Your task to perform on an android device: Open calendar and show me the second week of next month Image 0: 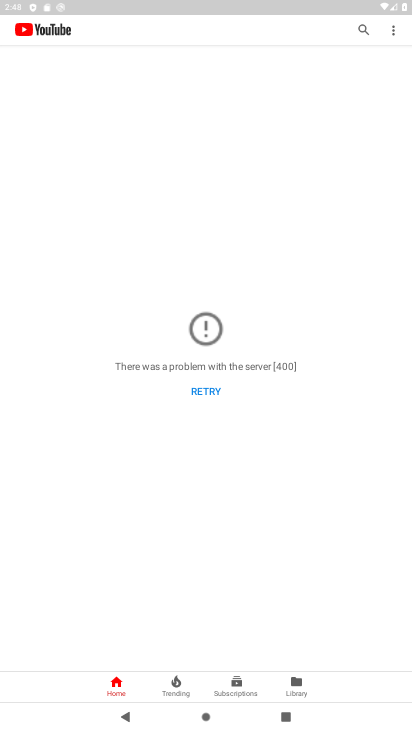
Step 0: press home button
Your task to perform on an android device: Open calendar and show me the second week of next month Image 1: 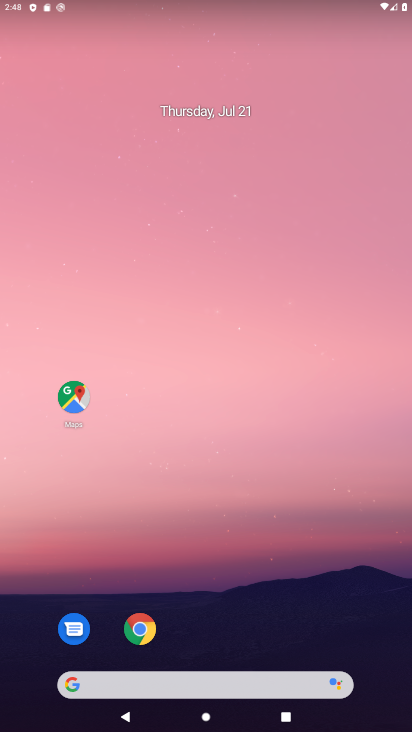
Step 1: drag from (214, 622) to (218, 43)
Your task to perform on an android device: Open calendar and show me the second week of next month Image 2: 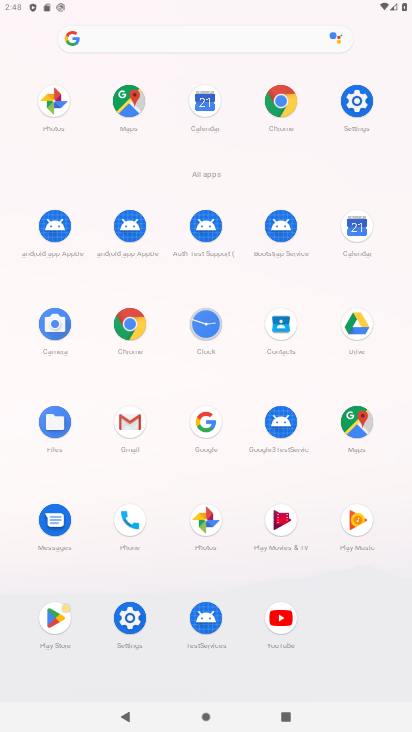
Step 2: click (357, 235)
Your task to perform on an android device: Open calendar and show me the second week of next month Image 3: 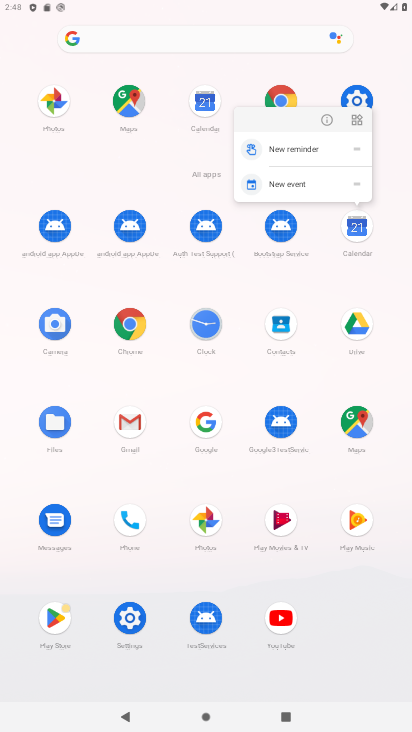
Step 3: click (357, 235)
Your task to perform on an android device: Open calendar and show me the second week of next month Image 4: 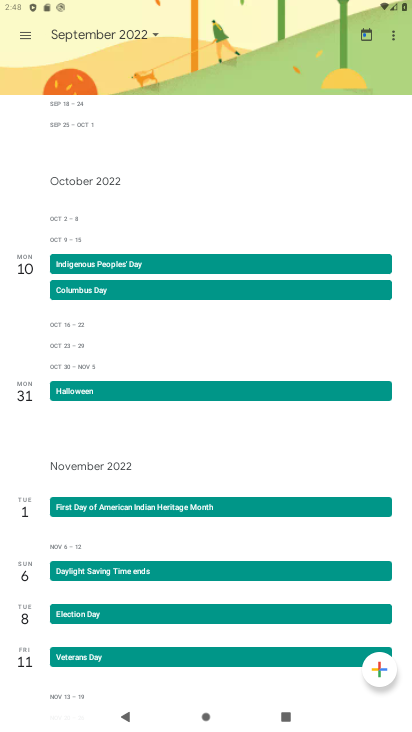
Step 4: click (27, 37)
Your task to perform on an android device: Open calendar and show me the second week of next month Image 5: 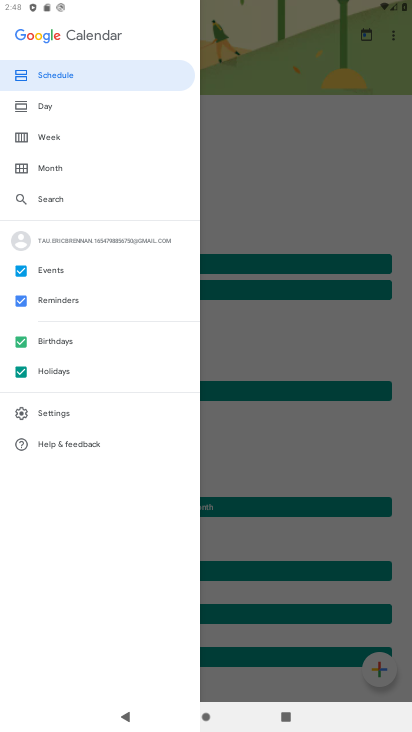
Step 5: click (63, 299)
Your task to perform on an android device: Open calendar and show me the second week of next month Image 6: 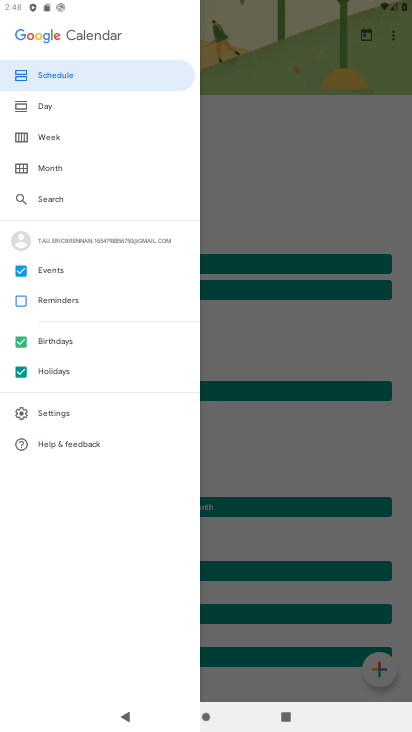
Step 6: click (63, 299)
Your task to perform on an android device: Open calendar and show me the second week of next month Image 7: 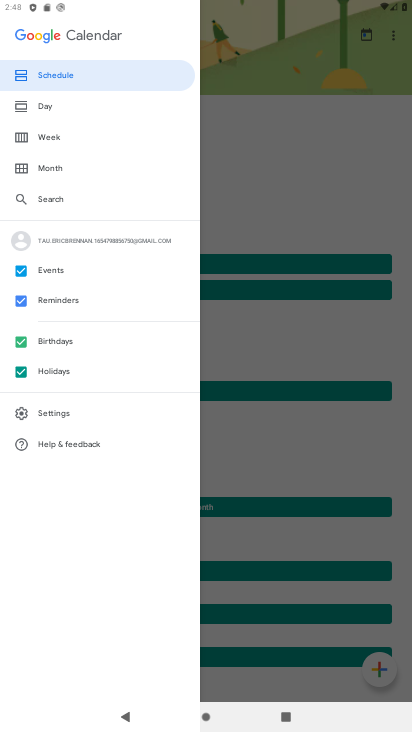
Step 7: click (46, 142)
Your task to perform on an android device: Open calendar and show me the second week of next month Image 8: 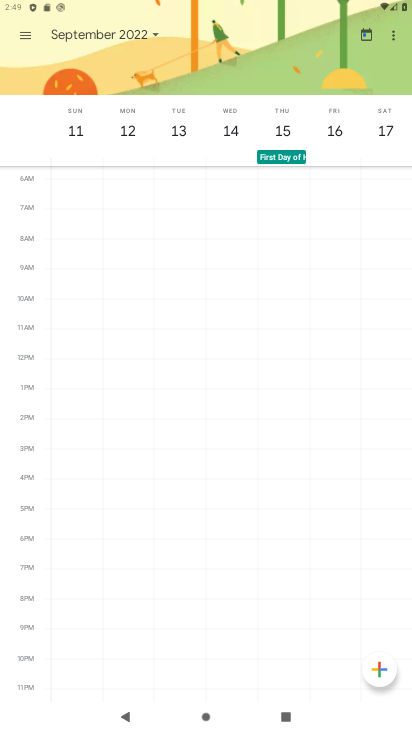
Step 8: task complete